Your task to perform on an android device: open the mobile data screen to see how much data has been used Image 0: 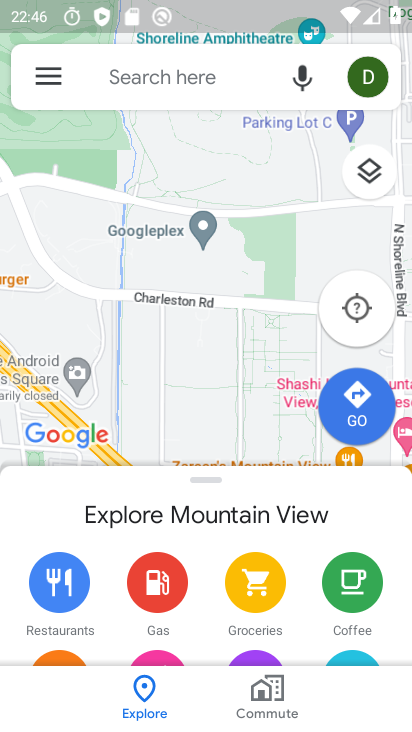
Step 0: press home button
Your task to perform on an android device: open the mobile data screen to see how much data has been used Image 1: 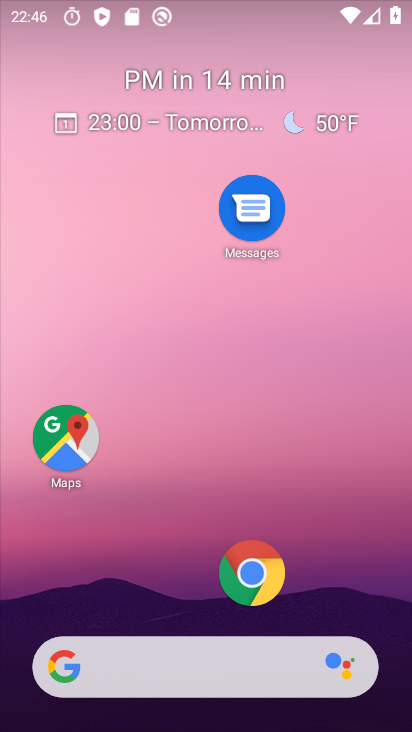
Step 1: drag from (168, 590) to (210, 86)
Your task to perform on an android device: open the mobile data screen to see how much data has been used Image 2: 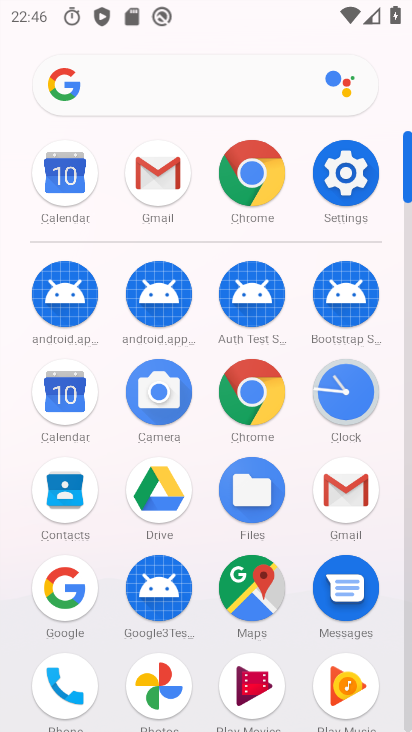
Step 2: click (346, 170)
Your task to perform on an android device: open the mobile data screen to see how much data has been used Image 3: 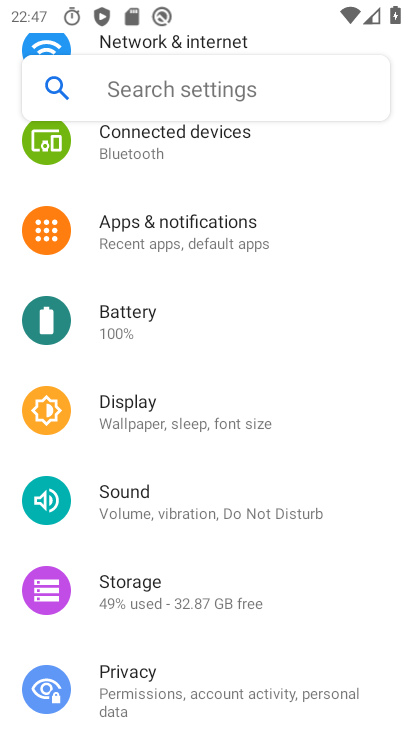
Step 3: drag from (222, 261) to (223, 601)
Your task to perform on an android device: open the mobile data screen to see how much data has been used Image 4: 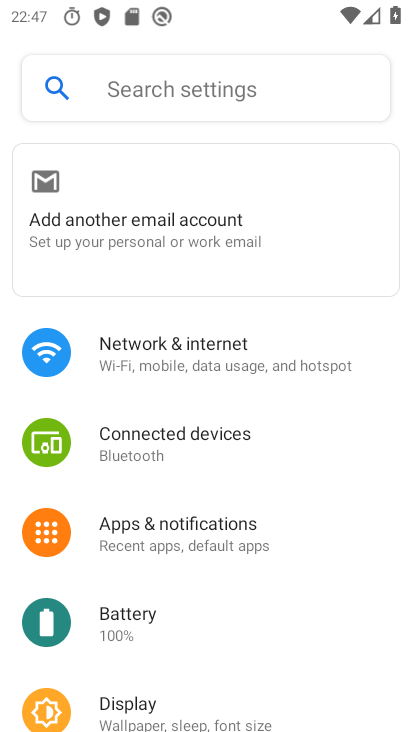
Step 4: click (134, 371)
Your task to perform on an android device: open the mobile data screen to see how much data has been used Image 5: 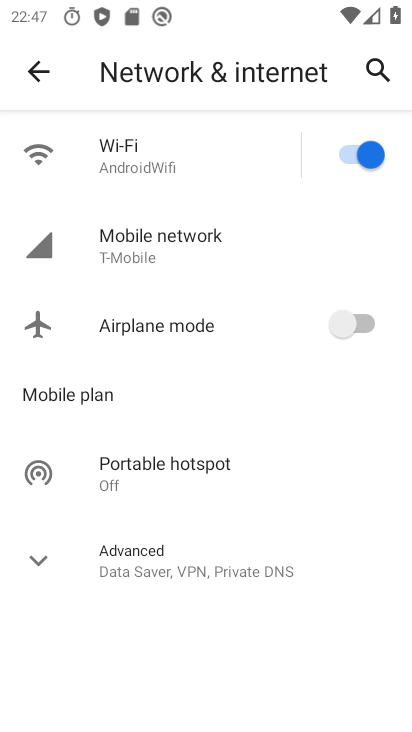
Step 5: click (172, 245)
Your task to perform on an android device: open the mobile data screen to see how much data has been used Image 6: 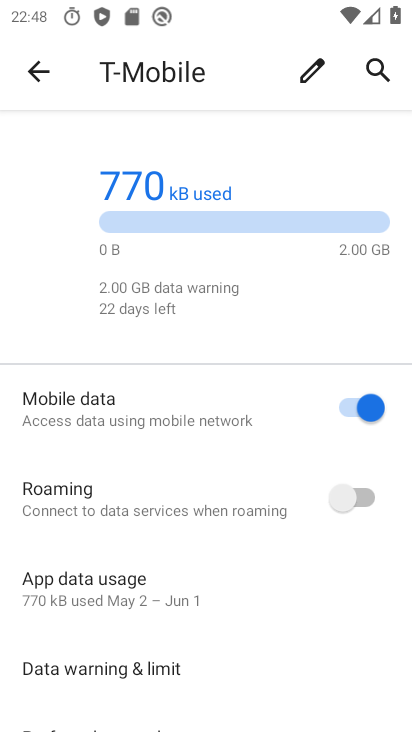
Step 6: task complete